Your task to perform on an android device: delete a single message in the gmail app Image 0: 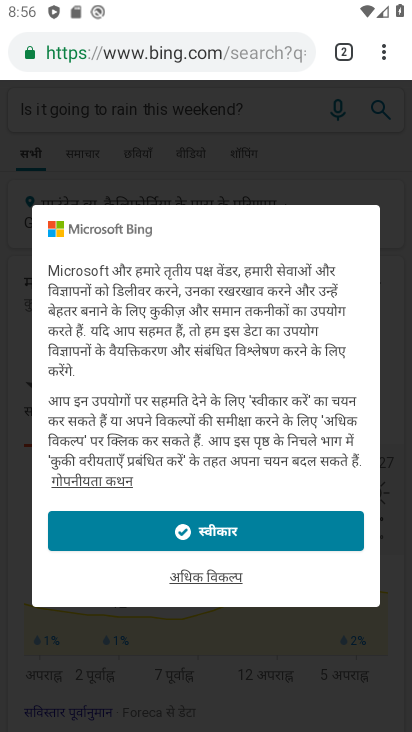
Step 0: press home button
Your task to perform on an android device: delete a single message in the gmail app Image 1: 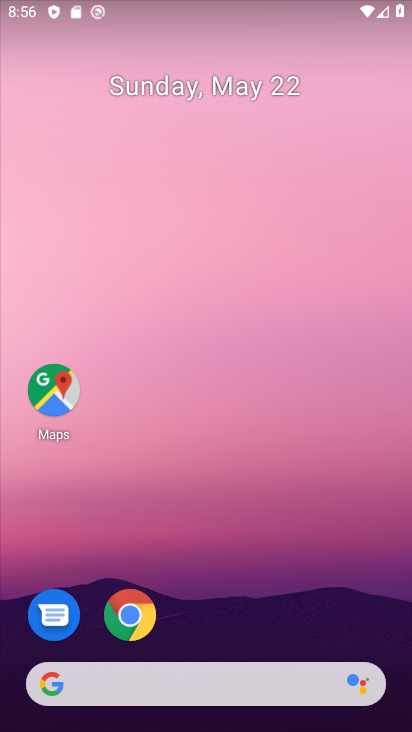
Step 1: drag from (234, 529) to (236, 244)
Your task to perform on an android device: delete a single message in the gmail app Image 2: 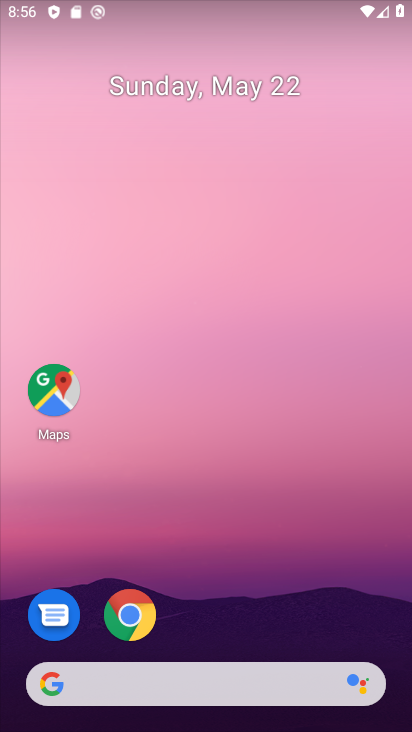
Step 2: drag from (238, 628) to (256, 282)
Your task to perform on an android device: delete a single message in the gmail app Image 3: 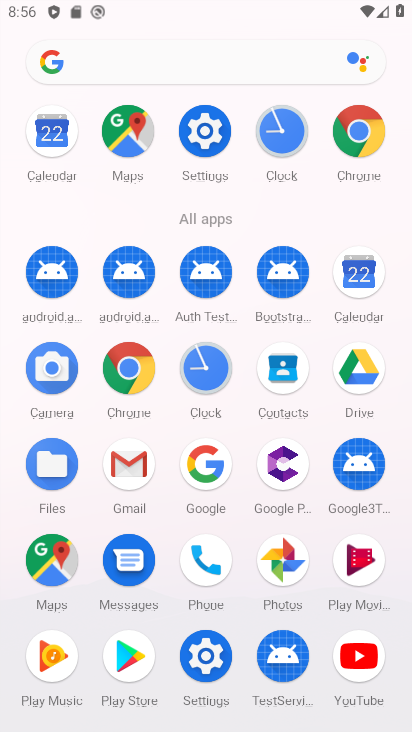
Step 3: click (136, 460)
Your task to perform on an android device: delete a single message in the gmail app Image 4: 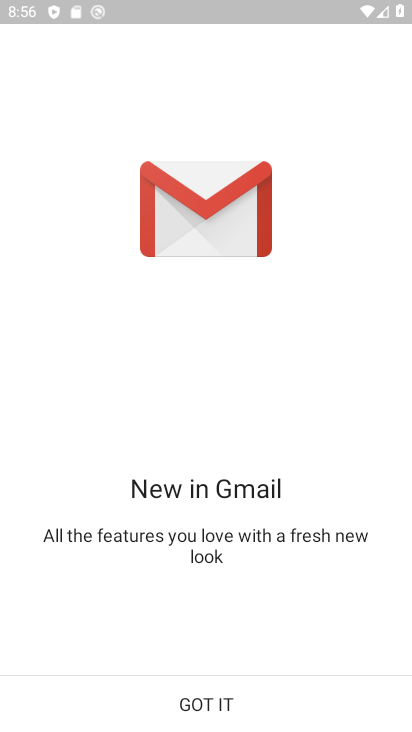
Step 4: click (199, 706)
Your task to perform on an android device: delete a single message in the gmail app Image 5: 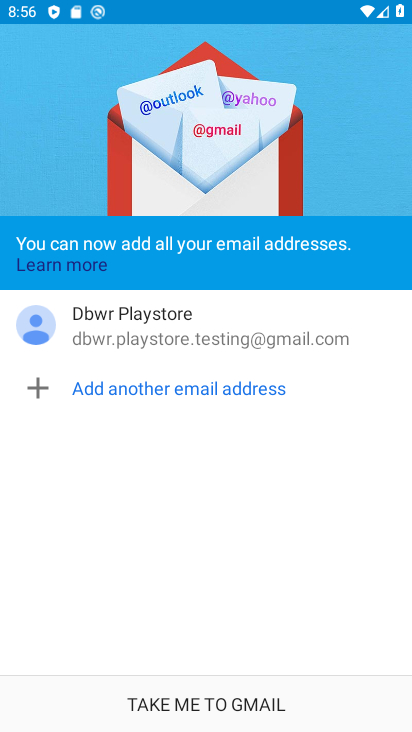
Step 5: click (206, 701)
Your task to perform on an android device: delete a single message in the gmail app Image 6: 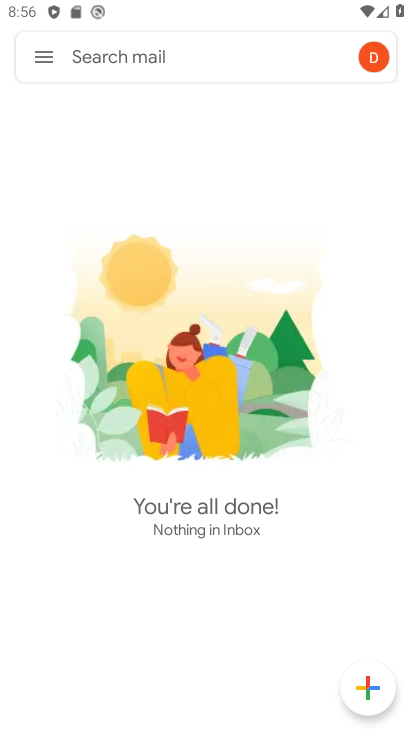
Step 6: click (38, 53)
Your task to perform on an android device: delete a single message in the gmail app Image 7: 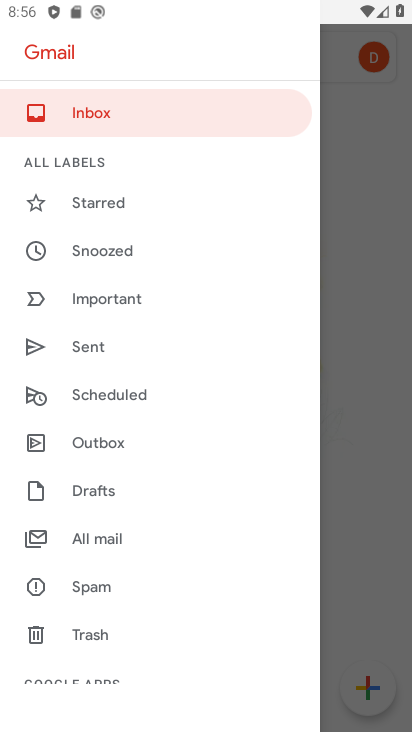
Step 7: task complete